Your task to perform on an android device: show emergency info Image 0: 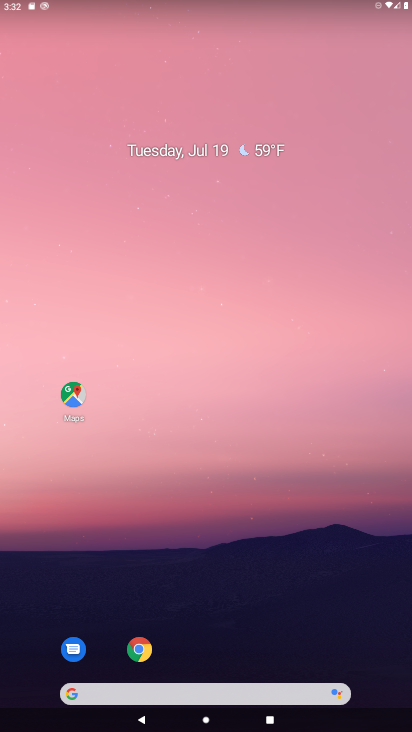
Step 0: drag from (227, 684) to (240, 316)
Your task to perform on an android device: show emergency info Image 1: 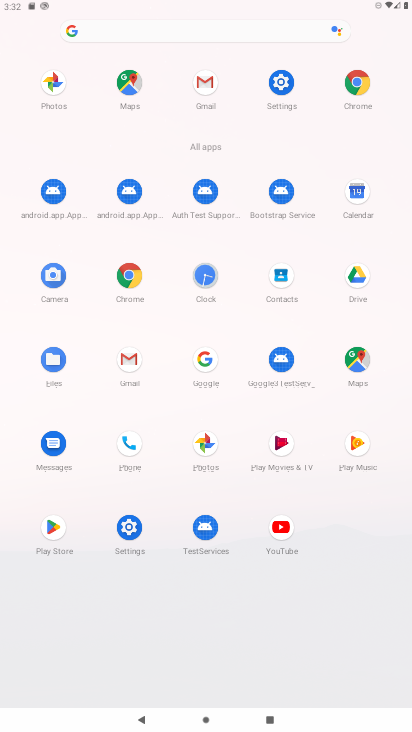
Step 1: click (283, 91)
Your task to perform on an android device: show emergency info Image 2: 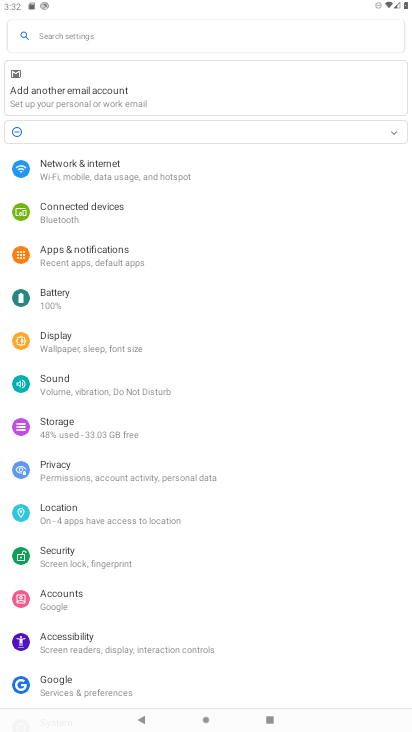
Step 2: drag from (130, 625) to (130, 422)
Your task to perform on an android device: show emergency info Image 3: 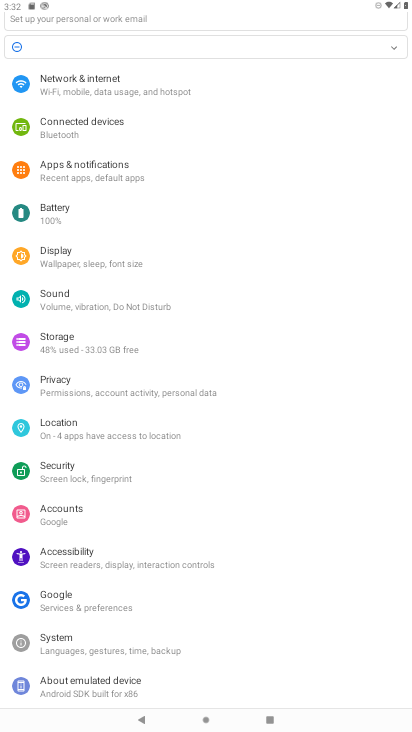
Step 3: click (108, 686)
Your task to perform on an android device: show emergency info Image 4: 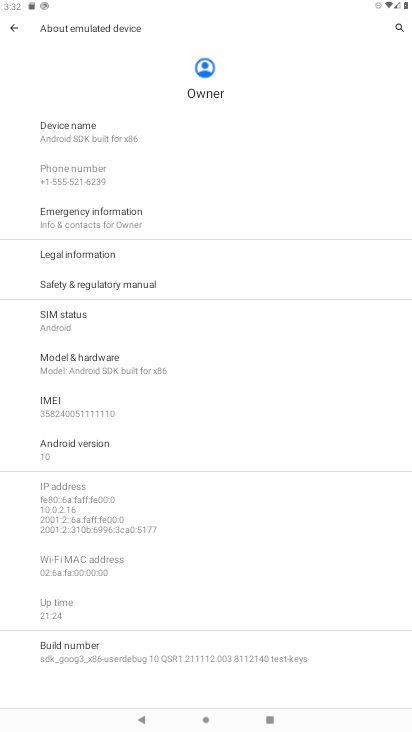
Step 4: click (124, 210)
Your task to perform on an android device: show emergency info Image 5: 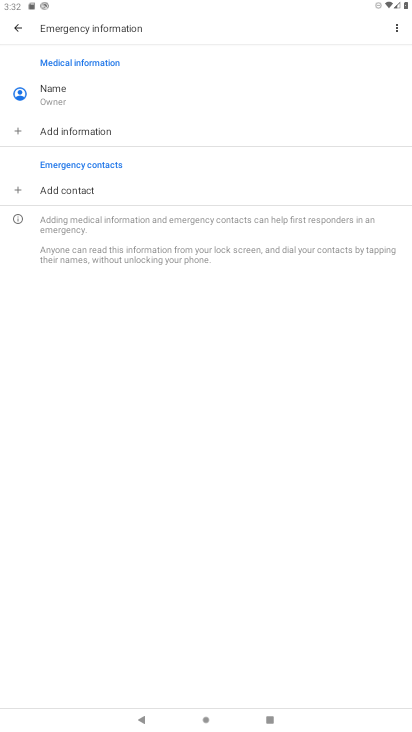
Step 5: task complete